Your task to perform on an android device: turn on location history Image 0: 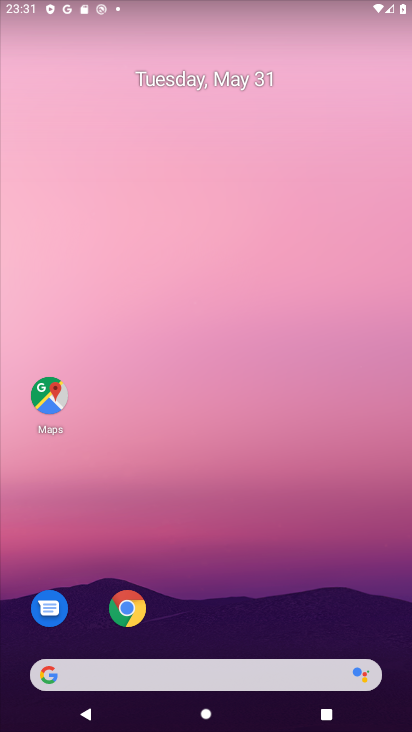
Step 0: press home button
Your task to perform on an android device: turn on location history Image 1: 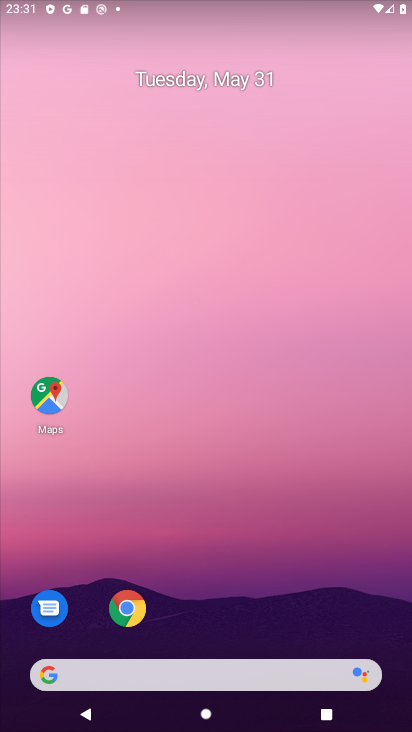
Step 1: drag from (292, 582) to (271, 0)
Your task to perform on an android device: turn on location history Image 2: 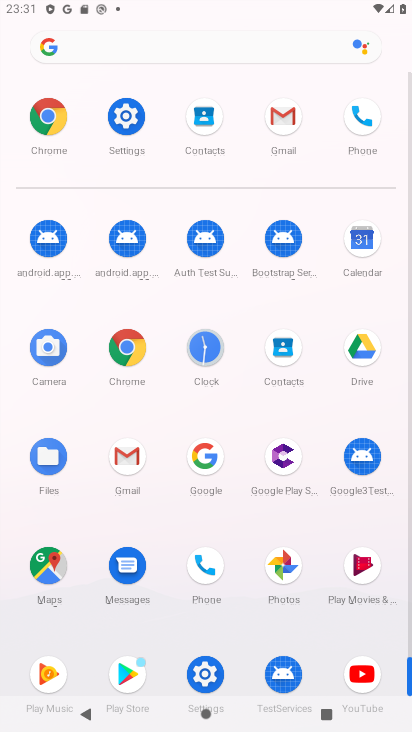
Step 2: click (46, 554)
Your task to perform on an android device: turn on location history Image 3: 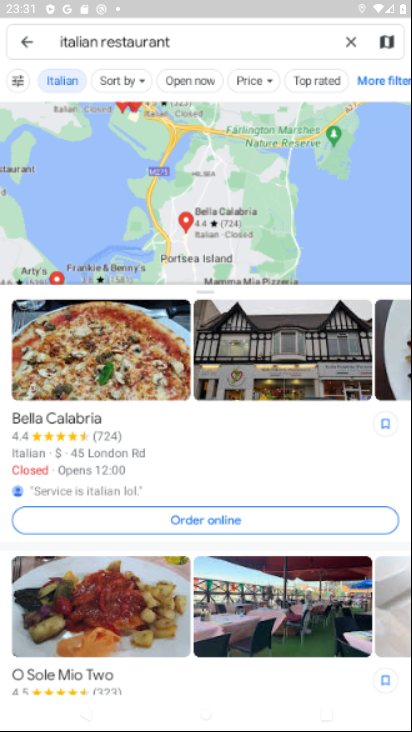
Step 3: click (24, 29)
Your task to perform on an android device: turn on location history Image 4: 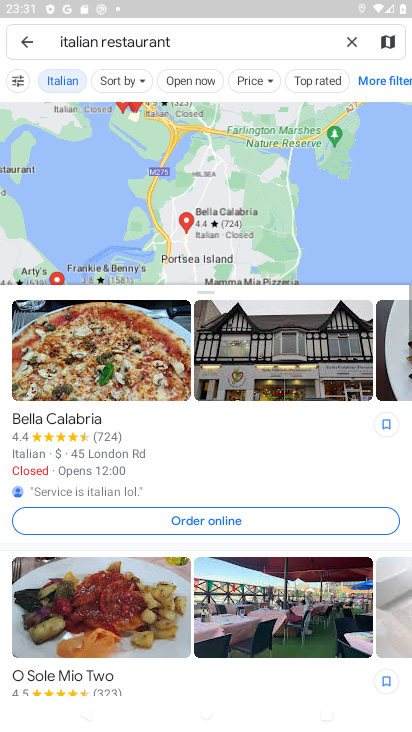
Step 4: click (28, 43)
Your task to perform on an android device: turn on location history Image 5: 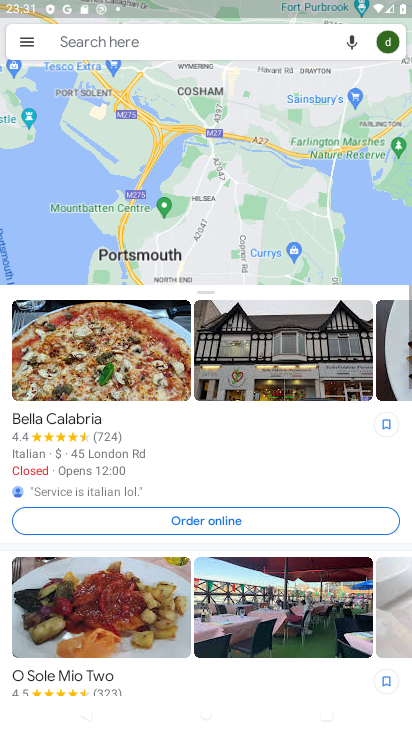
Step 5: click (28, 43)
Your task to perform on an android device: turn on location history Image 6: 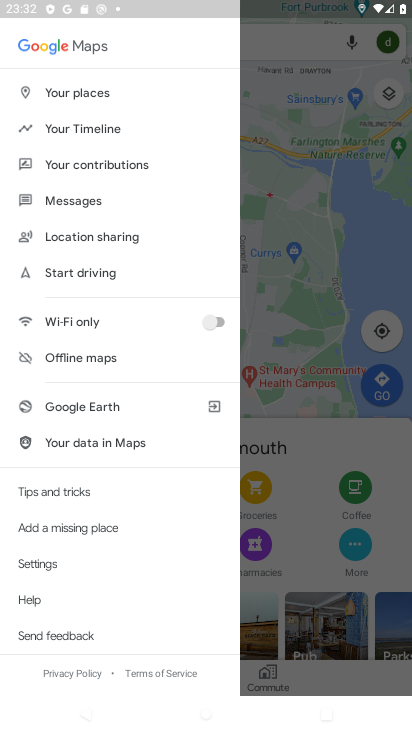
Step 6: click (80, 116)
Your task to perform on an android device: turn on location history Image 7: 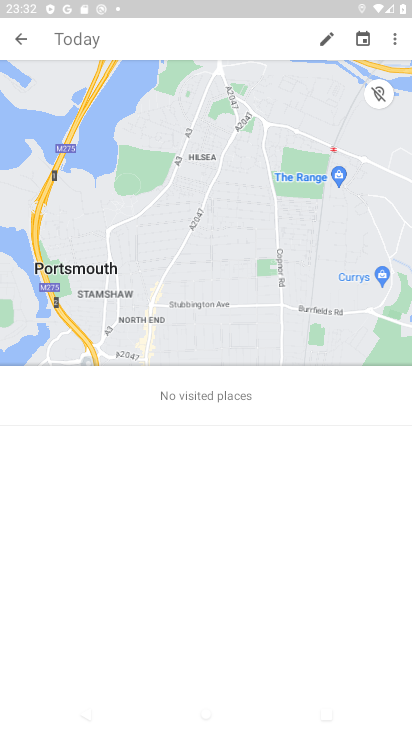
Step 7: click (388, 36)
Your task to perform on an android device: turn on location history Image 8: 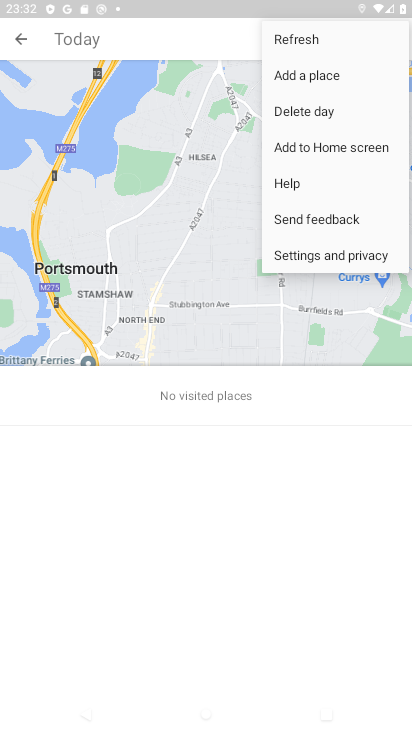
Step 8: click (312, 258)
Your task to perform on an android device: turn on location history Image 9: 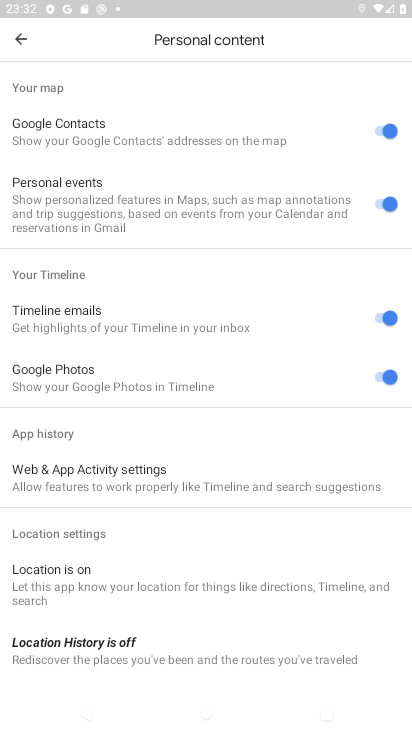
Step 9: click (145, 663)
Your task to perform on an android device: turn on location history Image 10: 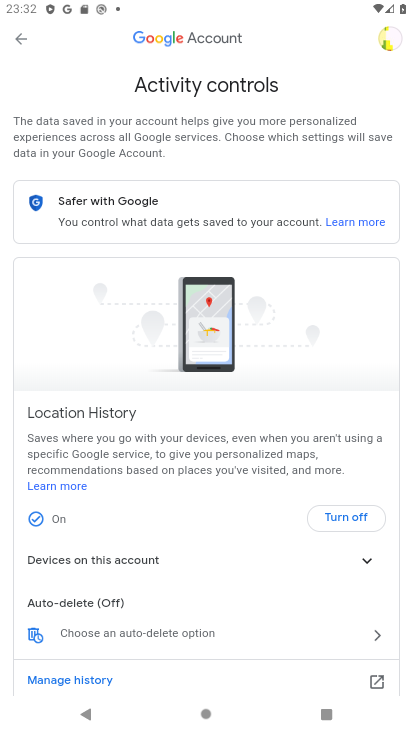
Step 10: task complete